Your task to perform on an android device: make emails show in primary in the gmail app Image 0: 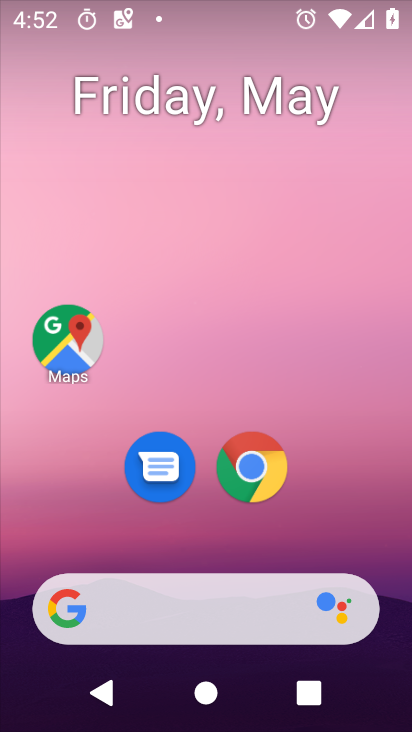
Step 0: drag from (330, 546) to (368, 124)
Your task to perform on an android device: make emails show in primary in the gmail app Image 1: 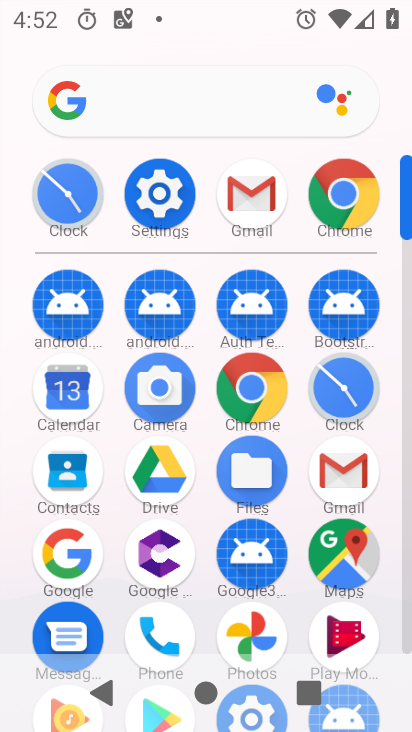
Step 1: click (256, 188)
Your task to perform on an android device: make emails show in primary in the gmail app Image 2: 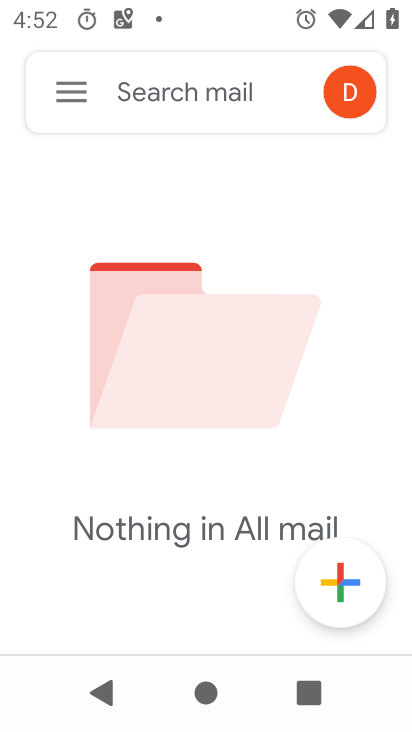
Step 2: click (70, 92)
Your task to perform on an android device: make emails show in primary in the gmail app Image 3: 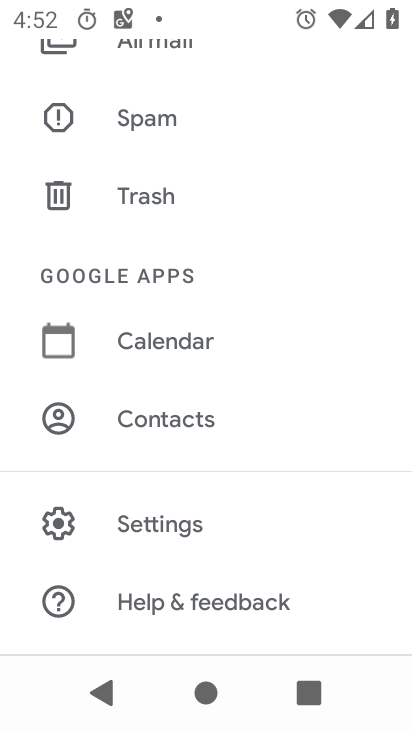
Step 3: click (183, 535)
Your task to perform on an android device: make emails show in primary in the gmail app Image 4: 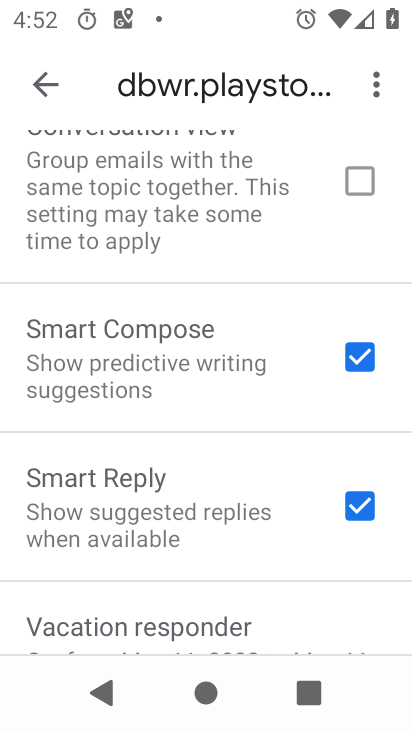
Step 4: drag from (202, 197) to (239, 633)
Your task to perform on an android device: make emails show in primary in the gmail app Image 5: 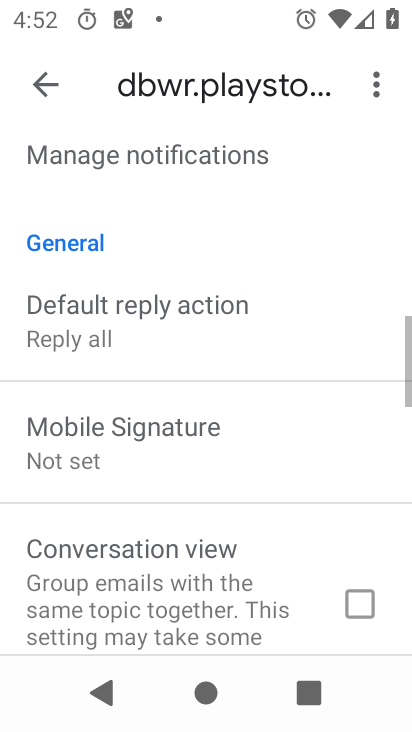
Step 5: drag from (206, 249) to (215, 635)
Your task to perform on an android device: make emails show in primary in the gmail app Image 6: 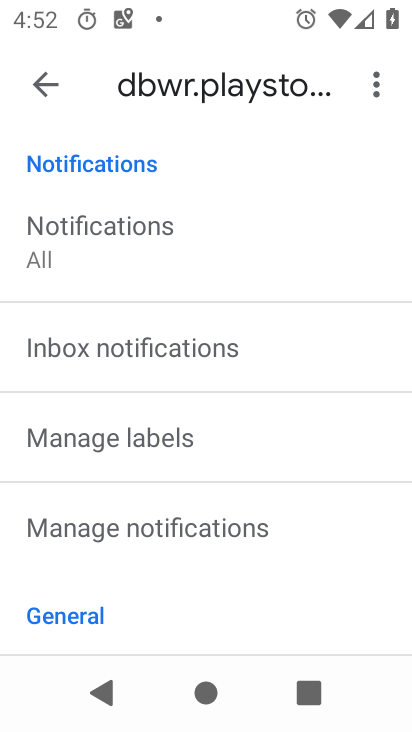
Step 6: drag from (203, 244) to (198, 649)
Your task to perform on an android device: make emails show in primary in the gmail app Image 7: 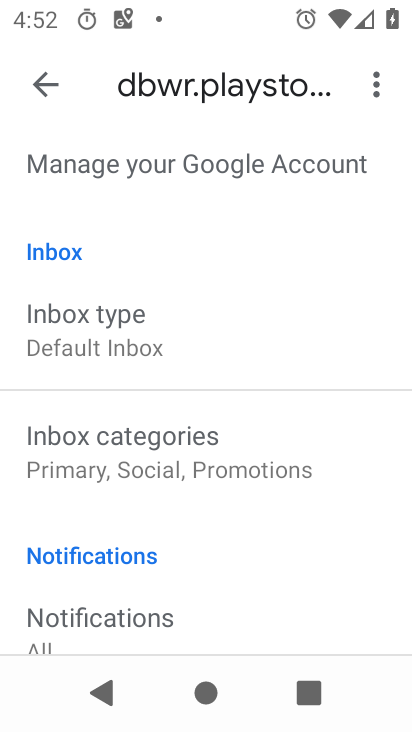
Step 7: click (130, 440)
Your task to perform on an android device: make emails show in primary in the gmail app Image 8: 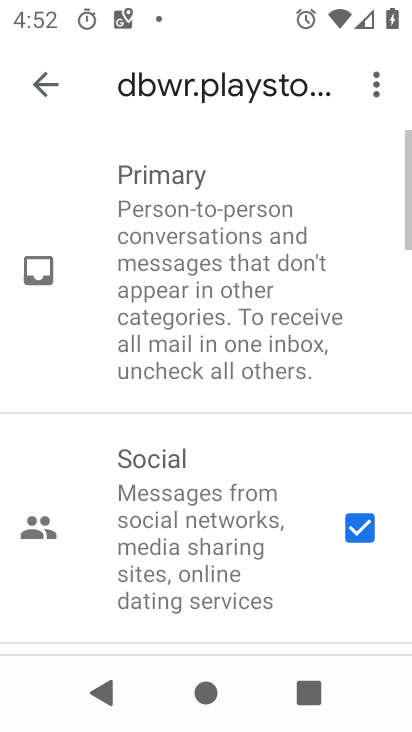
Step 8: task complete